Your task to perform on an android device: change text size in settings app Image 0: 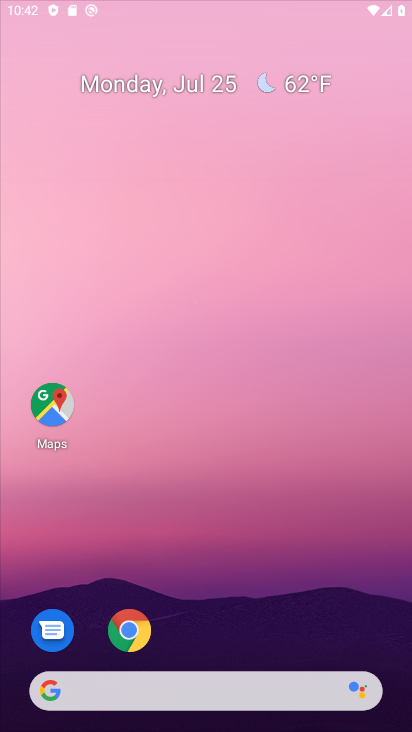
Step 0: drag from (201, 608) to (231, 89)
Your task to perform on an android device: change text size in settings app Image 1: 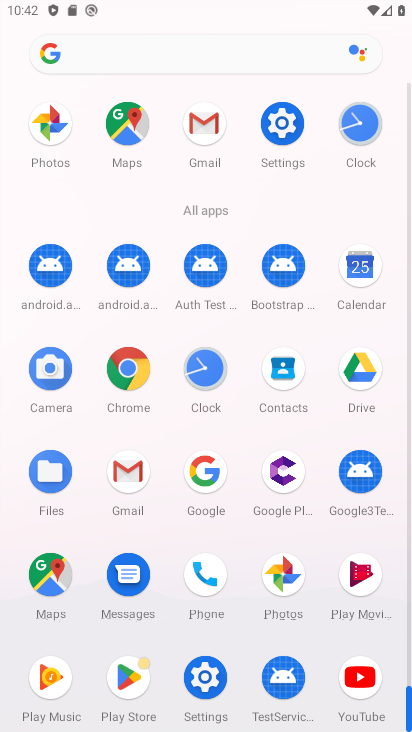
Step 1: click (199, 684)
Your task to perform on an android device: change text size in settings app Image 2: 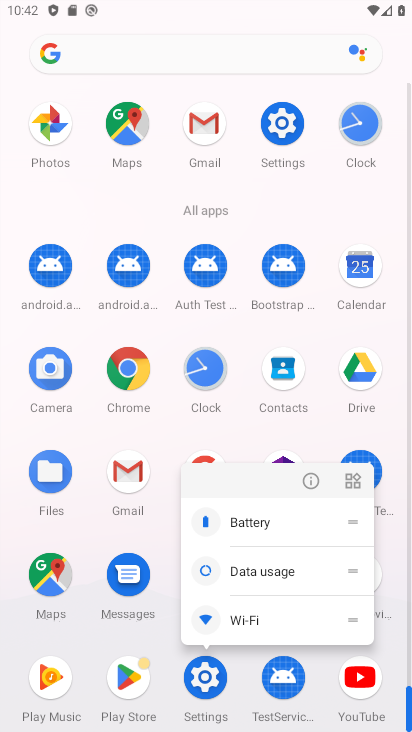
Step 2: click (311, 475)
Your task to perform on an android device: change text size in settings app Image 3: 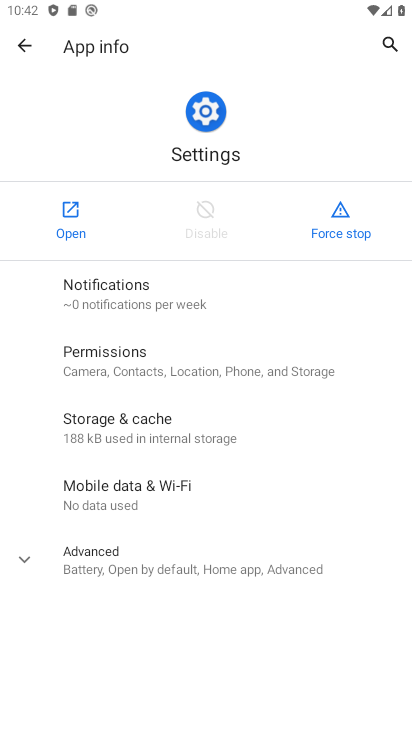
Step 3: click (64, 211)
Your task to perform on an android device: change text size in settings app Image 4: 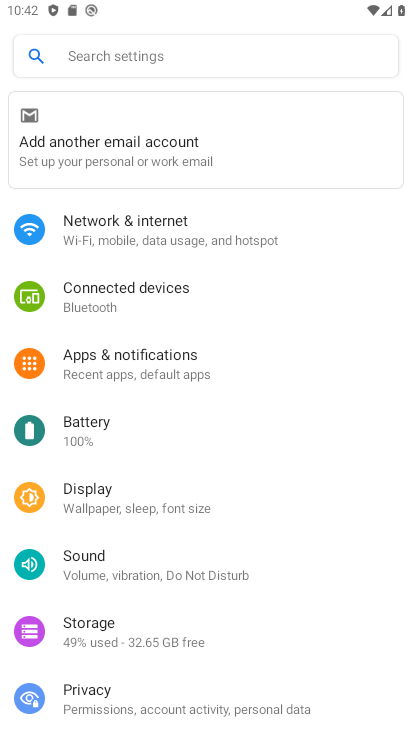
Step 4: drag from (148, 653) to (219, 214)
Your task to perform on an android device: change text size in settings app Image 5: 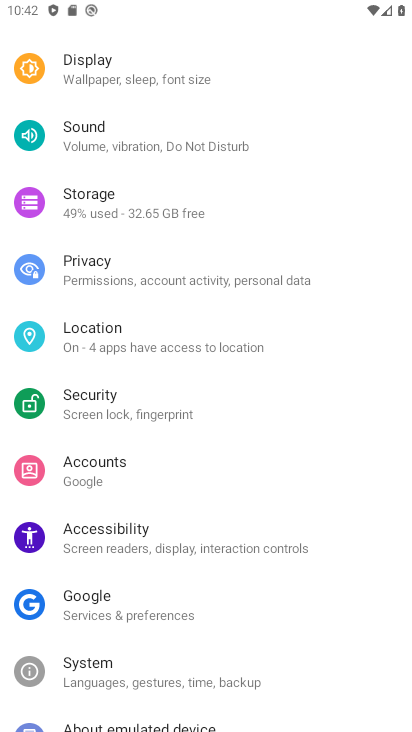
Step 5: drag from (149, 650) to (142, 280)
Your task to perform on an android device: change text size in settings app Image 6: 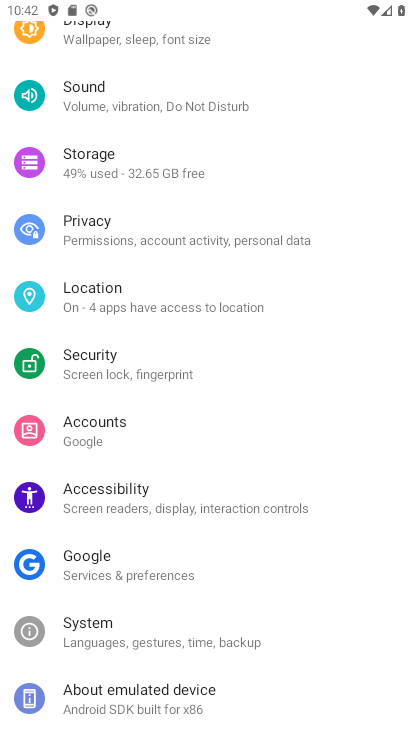
Step 6: click (125, 32)
Your task to perform on an android device: change text size in settings app Image 7: 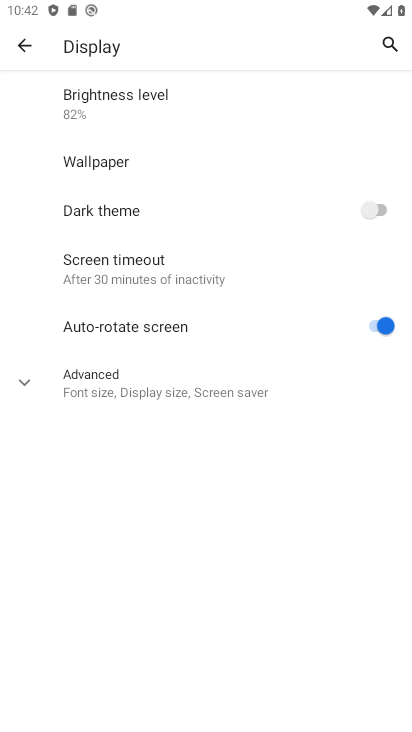
Step 7: click (123, 389)
Your task to perform on an android device: change text size in settings app Image 8: 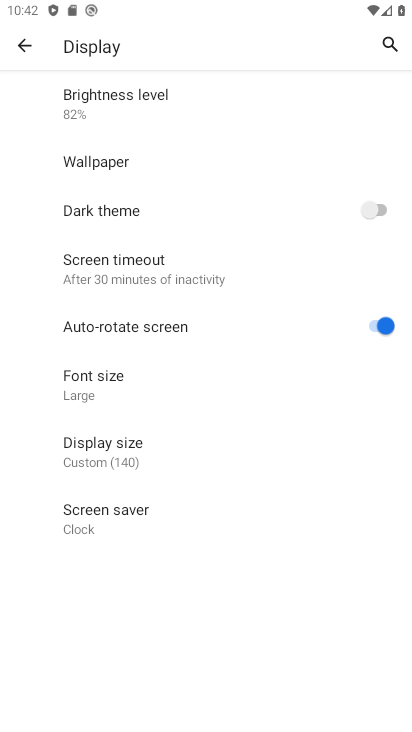
Step 8: click (138, 386)
Your task to perform on an android device: change text size in settings app Image 9: 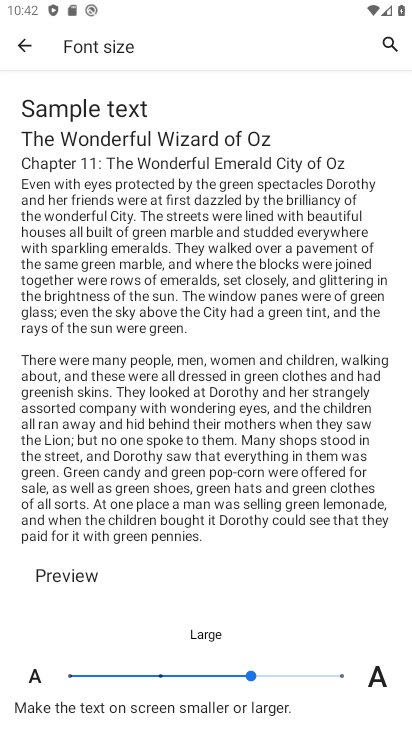
Step 9: drag from (210, 530) to (257, 308)
Your task to perform on an android device: change text size in settings app Image 10: 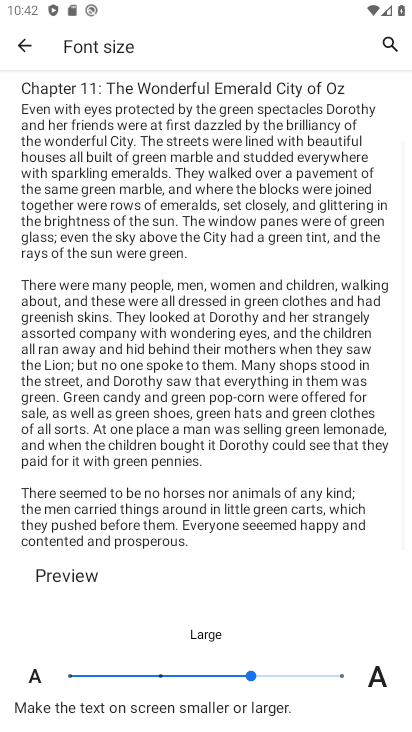
Step 10: click (340, 673)
Your task to perform on an android device: change text size in settings app Image 11: 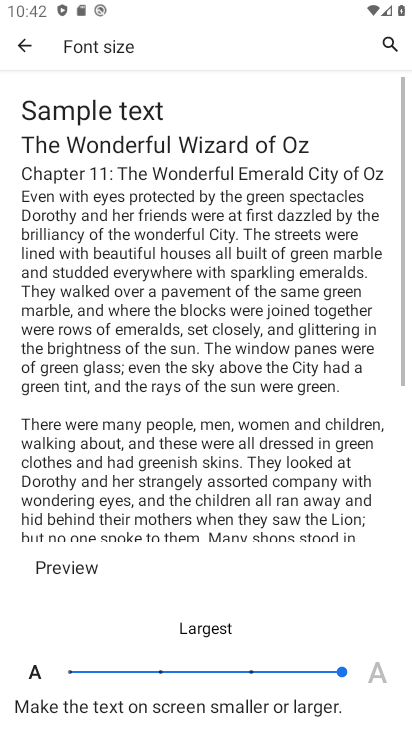
Step 11: task complete